Your task to perform on an android device: Open Google Chrome Image 0: 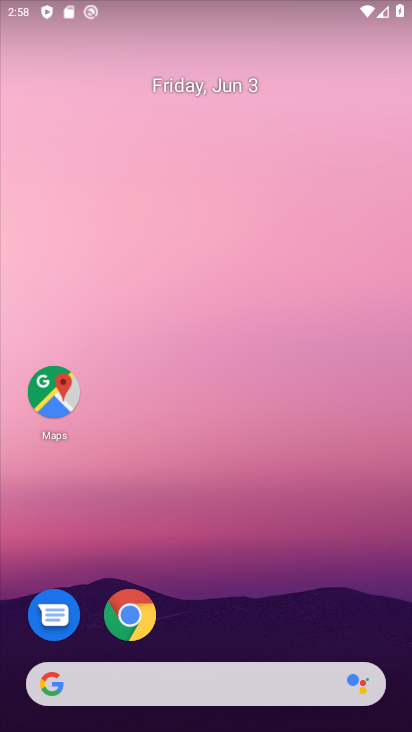
Step 0: click (134, 614)
Your task to perform on an android device: Open Google Chrome Image 1: 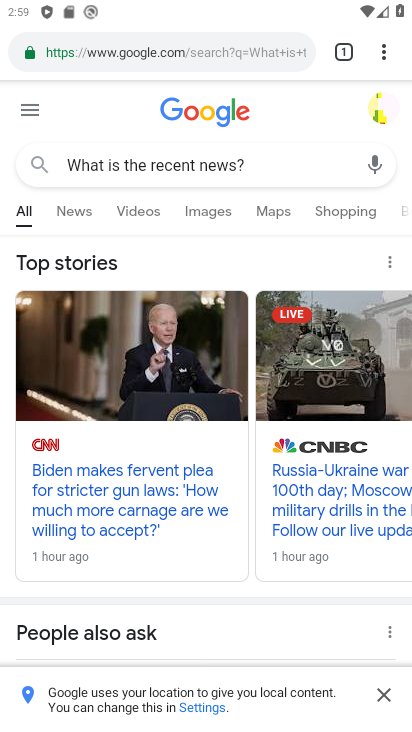
Step 1: task complete